Your task to perform on an android device: What's the weather going to be tomorrow? Image 0: 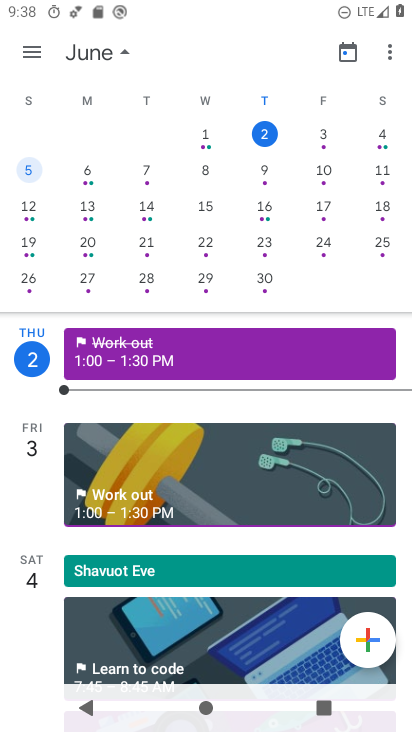
Step 0: press home button
Your task to perform on an android device: What's the weather going to be tomorrow? Image 1: 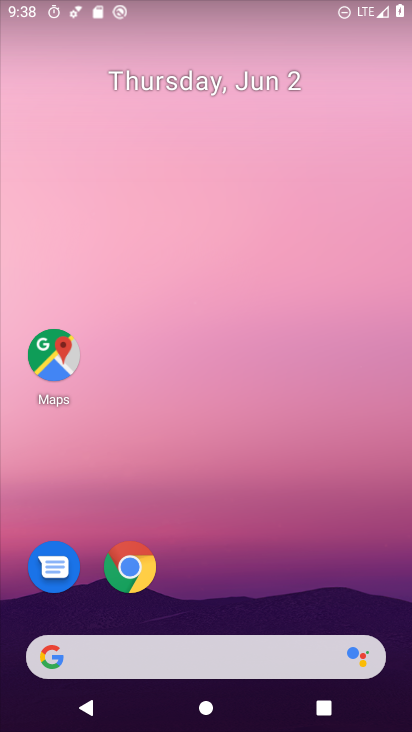
Step 1: drag from (339, 611) to (332, 116)
Your task to perform on an android device: What's the weather going to be tomorrow? Image 2: 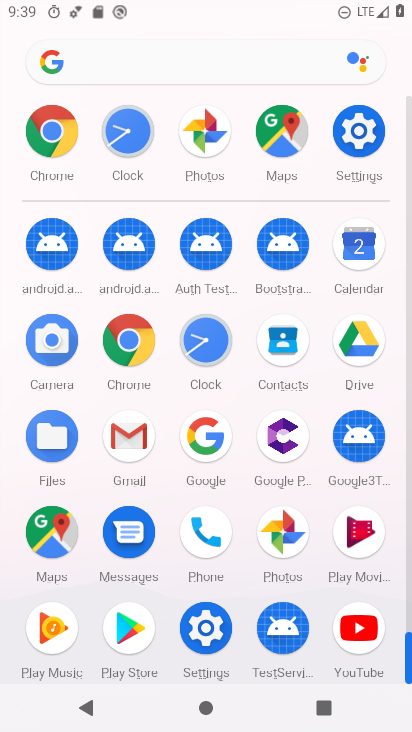
Step 2: click (149, 330)
Your task to perform on an android device: What's the weather going to be tomorrow? Image 3: 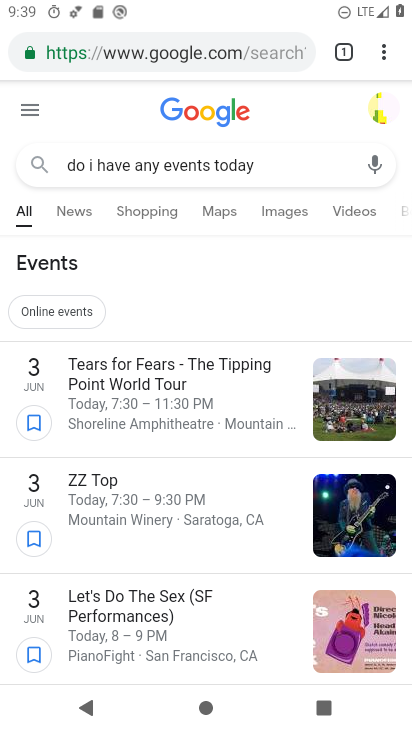
Step 3: click (241, 35)
Your task to perform on an android device: What's the weather going to be tomorrow? Image 4: 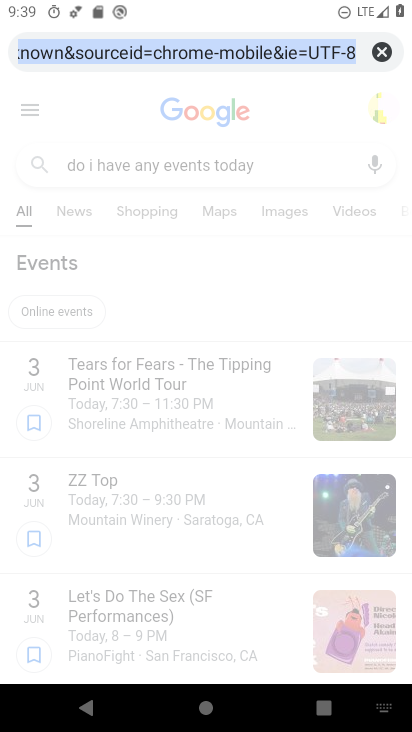
Step 4: click (385, 54)
Your task to perform on an android device: What's the weather going to be tomorrow? Image 5: 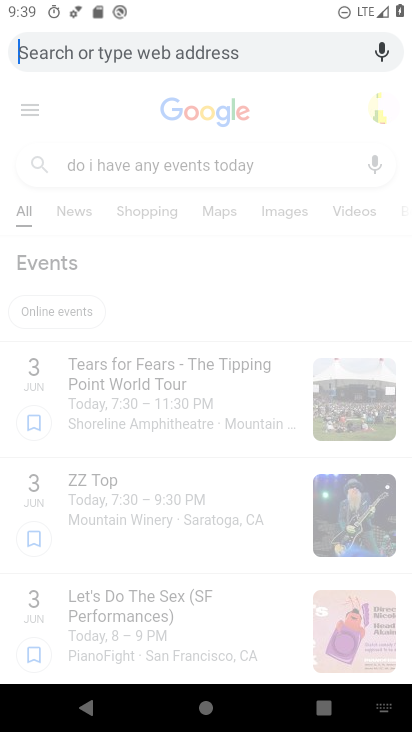
Step 5: type "what's weather going to be tomorrow"
Your task to perform on an android device: What's the weather going to be tomorrow? Image 6: 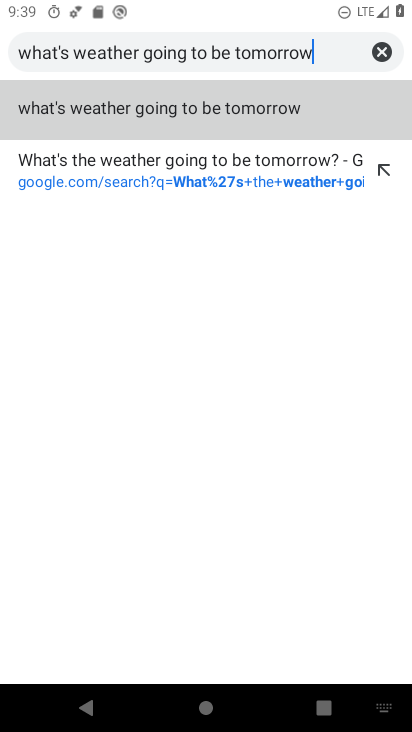
Step 6: click (118, 118)
Your task to perform on an android device: What's the weather going to be tomorrow? Image 7: 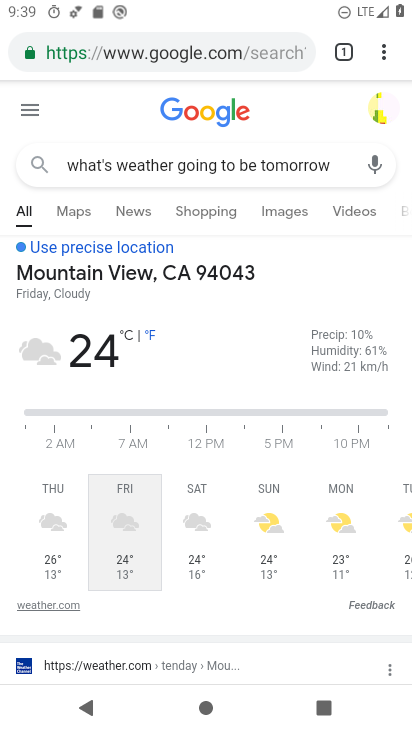
Step 7: task complete